Your task to perform on an android device: turn on translation in the chrome app Image 0: 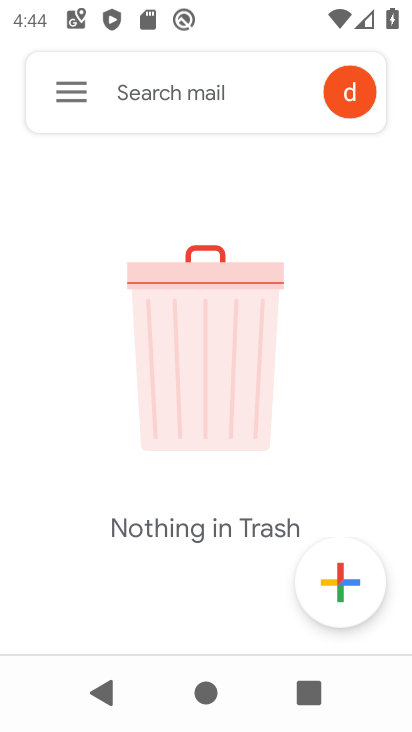
Step 0: press back button
Your task to perform on an android device: turn on translation in the chrome app Image 1: 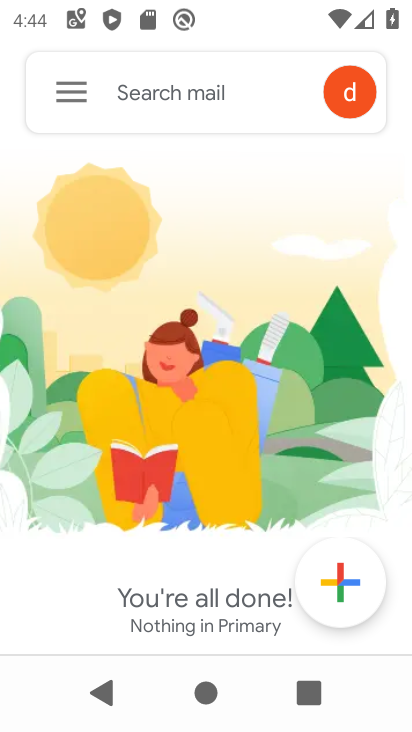
Step 1: press back button
Your task to perform on an android device: turn on translation in the chrome app Image 2: 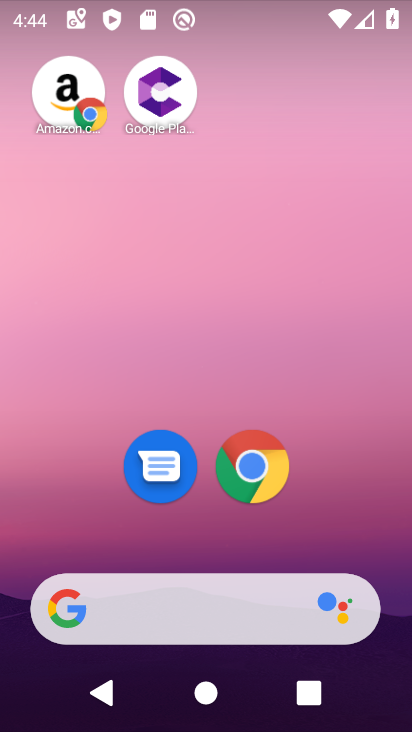
Step 2: drag from (389, 545) to (326, 1)
Your task to perform on an android device: turn on translation in the chrome app Image 3: 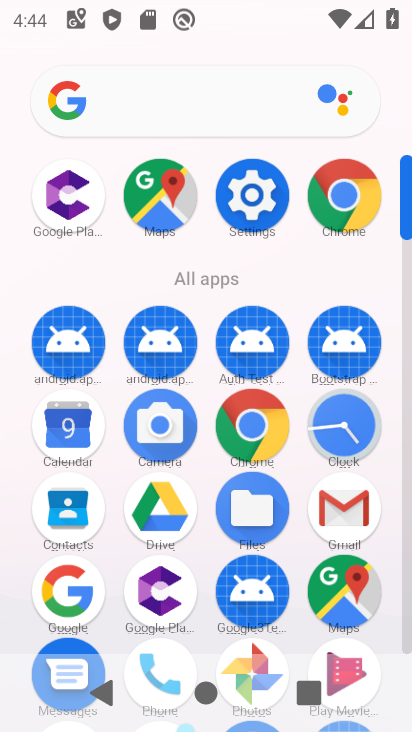
Step 3: click (343, 187)
Your task to perform on an android device: turn on translation in the chrome app Image 4: 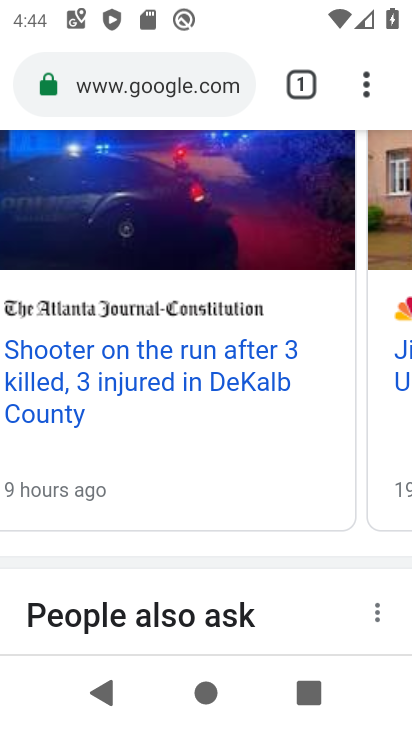
Step 4: drag from (367, 68) to (161, 510)
Your task to perform on an android device: turn on translation in the chrome app Image 5: 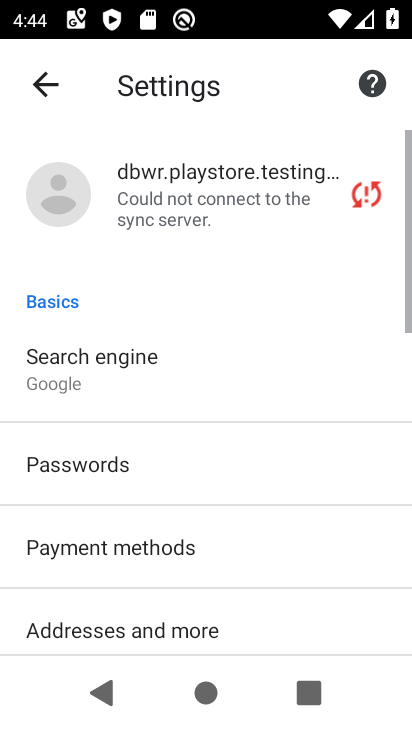
Step 5: drag from (226, 578) to (221, 157)
Your task to perform on an android device: turn on translation in the chrome app Image 6: 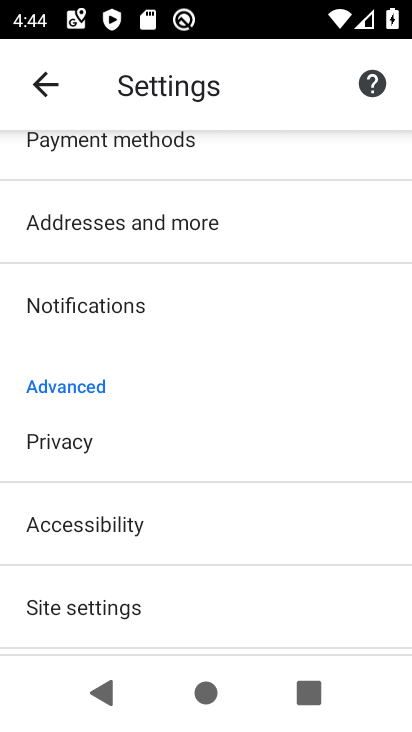
Step 6: drag from (193, 594) to (211, 247)
Your task to perform on an android device: turn on translation in the chrome app Image 7: 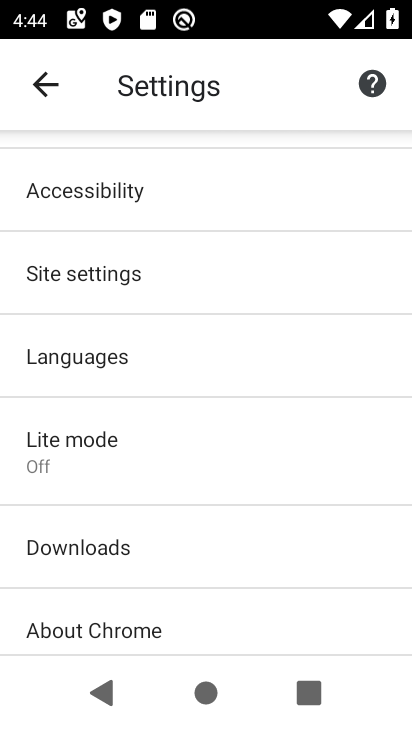
Step 7: click (189, 356)
Your task to perform on an android device: turn on translation in the chrome app Image 8: 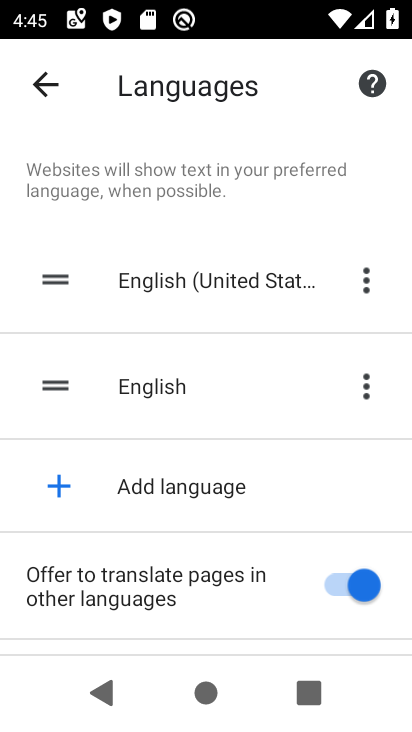
Step 8: task complete